Your task to perform on an android device: find snoozed emails in the gmail app Image 0: 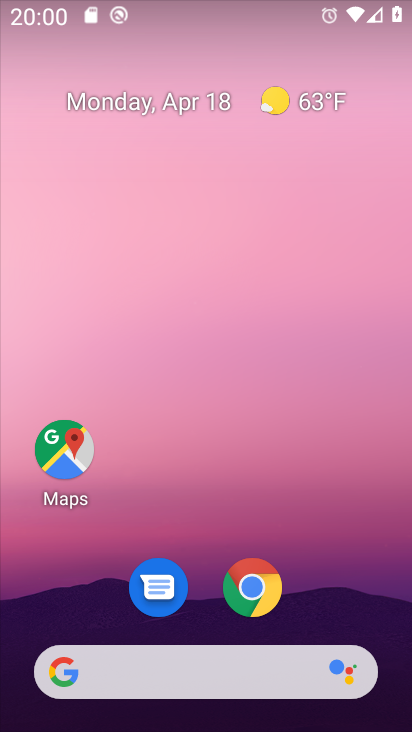
Step 0: drag from (349, 588) to (193, 86)
Your task to perform on an android device: find snoozed emails in the gmail app Image 1: 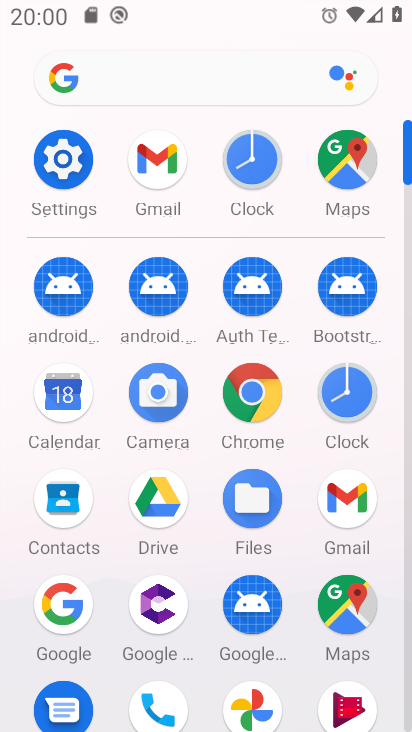
Step 1: click (332, 500)
Your task to perform on an android device: find snoozed emails in the gmail app Image 2: 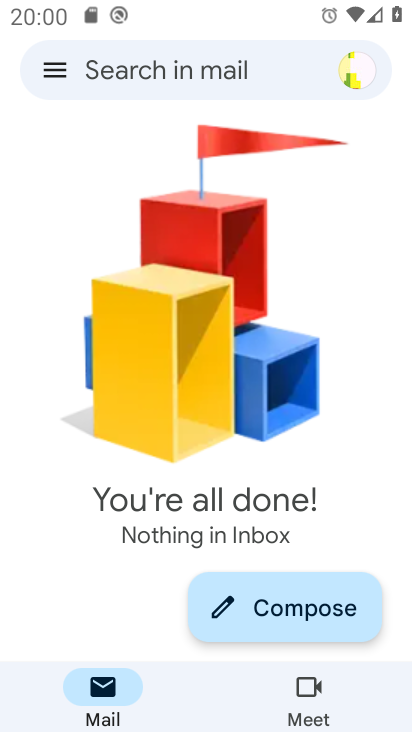
Step 2: click (50, 82)
Your task to perform on an android device: find snoozed emails in the gmail app Image 3: 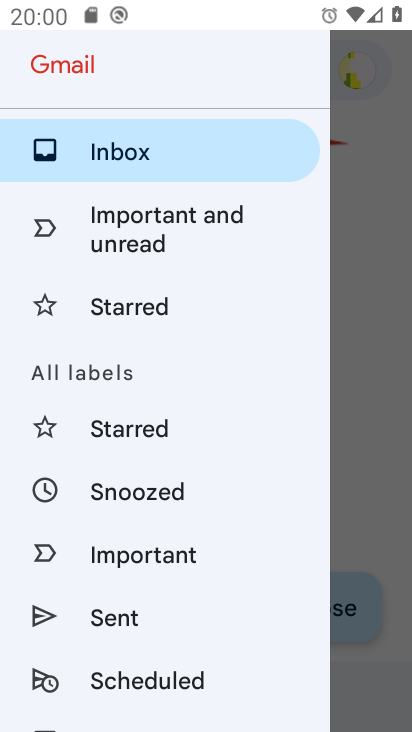
Step 3: click (155, 489)
Your task to perform on an android device: find snoozed emails in the gmail app Image 4: 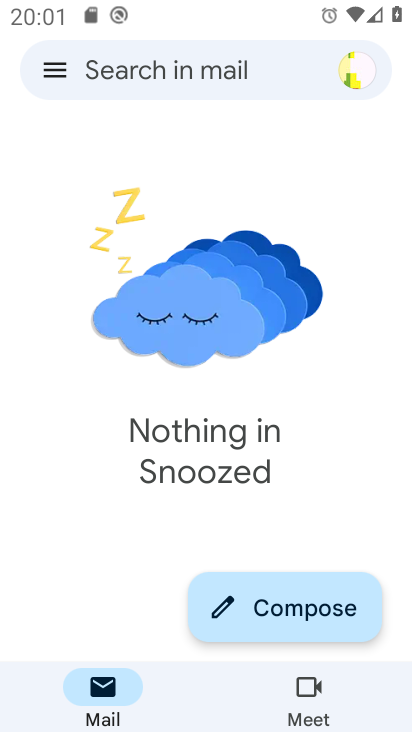
Step 4: task complete